Your task to perform on an android device: toggle priority inbox in the gmail app Image 0: 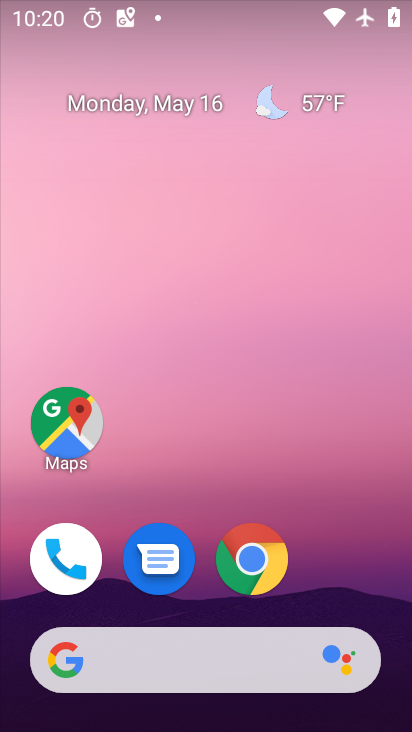
Step 0: drag from (343, 535) to (293, 117)
Your task to perform on an android device: toggle priority inbox in the gmail app Image 1: 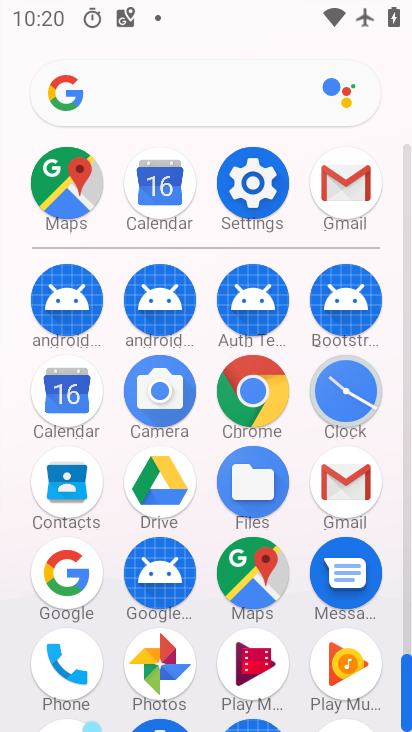
Step 1: click (353, 490)
Your task to perform on an android device: toggle priority inbox in the gmail app Image 2: 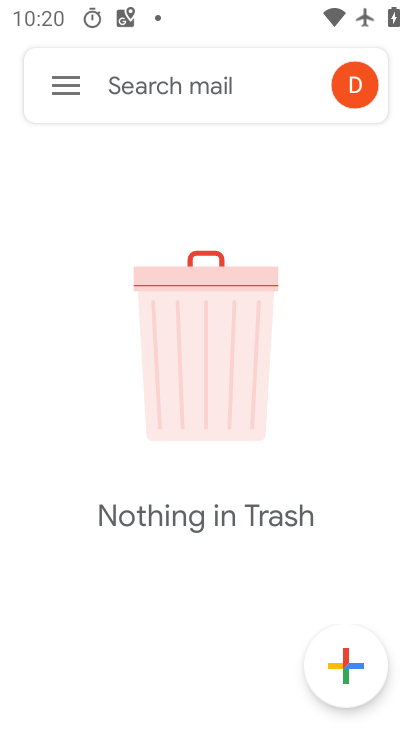
Step 2: click (74, 85)
Your task to perform on an android device: toggle priority inbox in the gmail app Image 3: 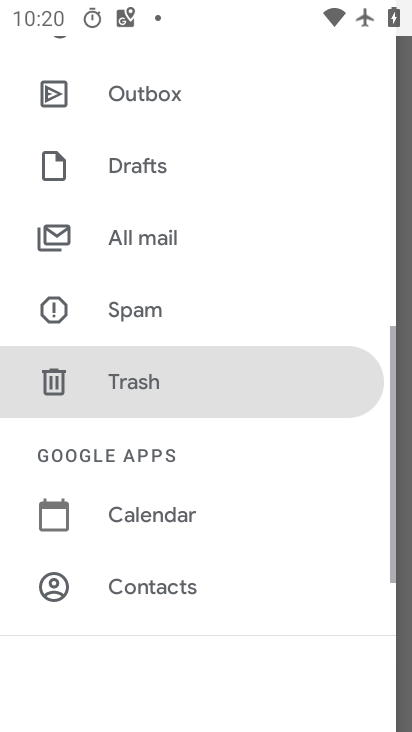
Step 3: drag from (145, 620) to (230, 255)
Your task to perform on an android device: toggle priority inbox in the gmail app Image 4: 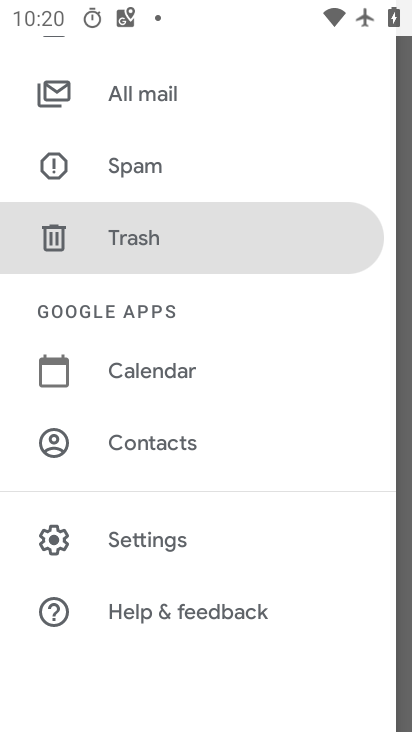
Step 4: click (124, 550)
Your task to perform on an android device: toggle priority inbox in the gmail app Image 5: 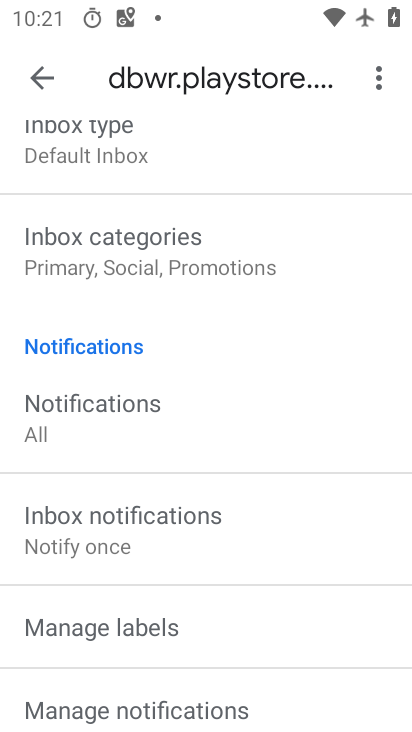
Step 5: drag from (117, 213) to (126, 470)
Your task to perform on an android device: toggle priority inbox in the gmail app Image 6: 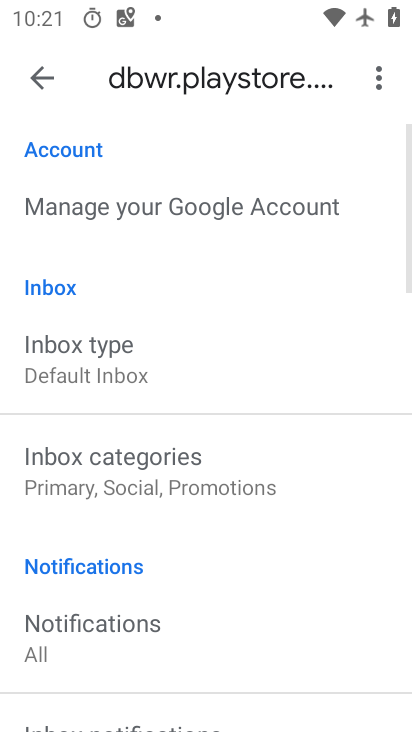
Step 6: click (106, 322)
Your task to perform on an android device: toggle priority inbox in the gmail app Image 7: 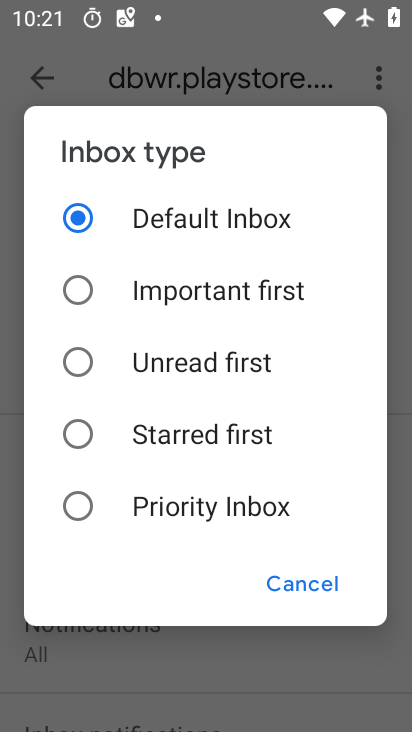
Step 7: click (174, 480)
Your task to perform on an android device: toggle priority inbox in the gmail app Image 8: 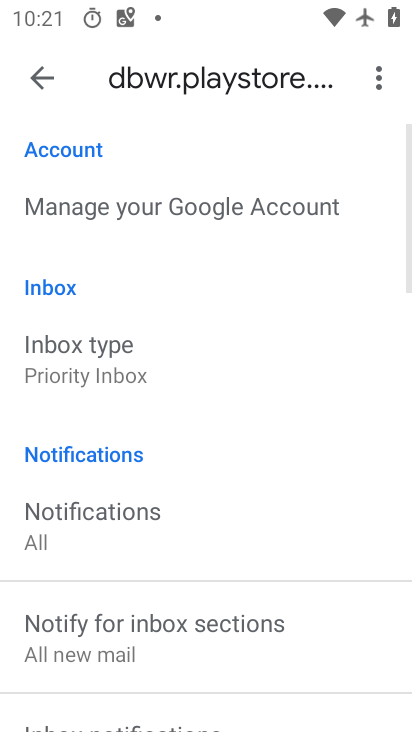
Step 8: task complete